Your task to perform on an android device: Open the stopwatch Image 0: 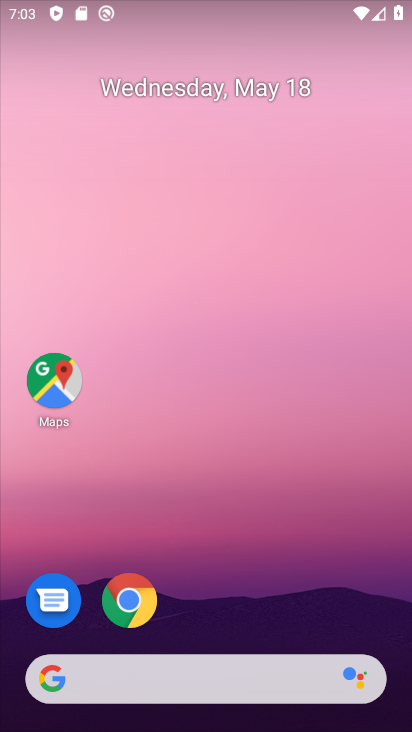
Step 0: drag from (284, 698) to (197, 362)
Your task to perform on an android device: Open the stopwatch Image 1: 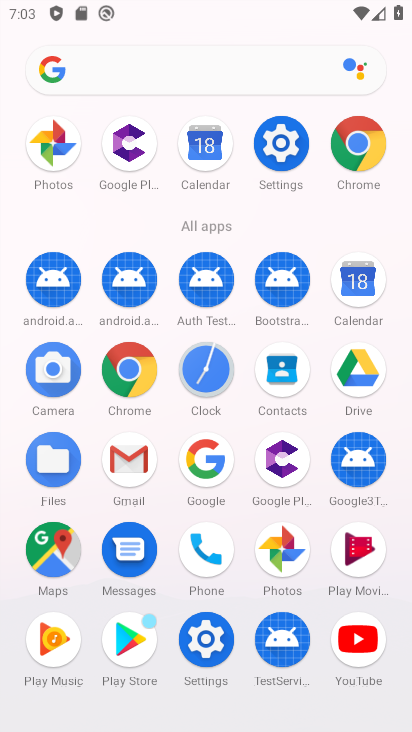
Step 1: click (209, 377)
Your task to perform on an android device: Open the stopwatch Image 2: 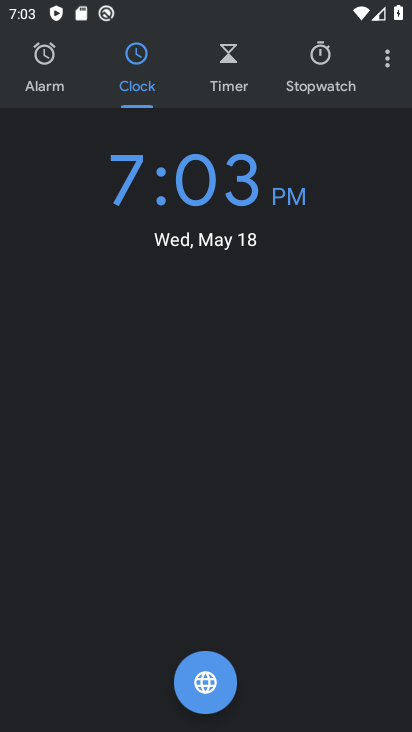
Step 2: click (308, 87)
Your task to perform on an android device: Open the stopwatch Image 3: 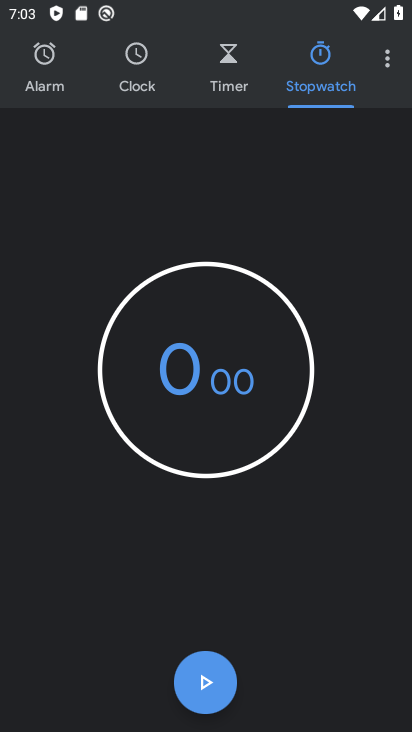
Step 3: click (215, 682)
Your task to perform on an android device: Open the stopwatch Image 4: 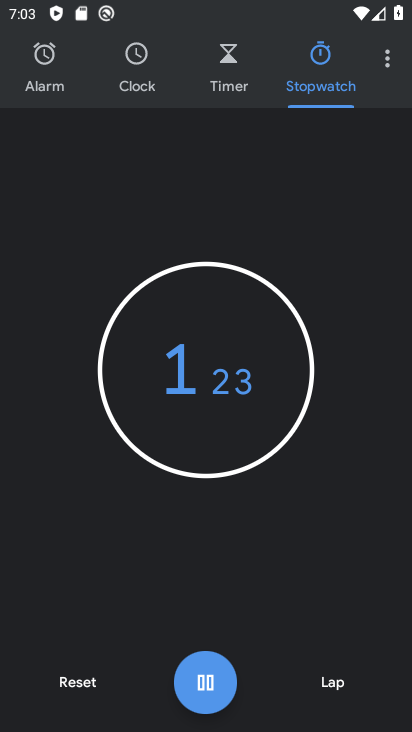
Step 4: click (214, 678)
Your task to perform on an android device: Open the stopwatch Image 5: 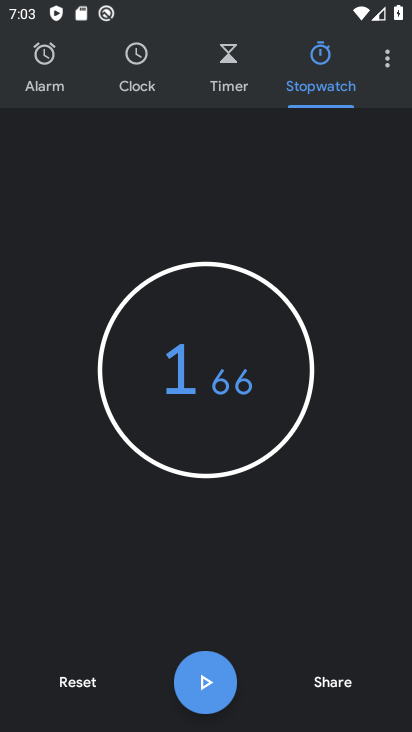
Step 5: task complete